Your task to perform on an android device: Go to Reddit.com Image 0: 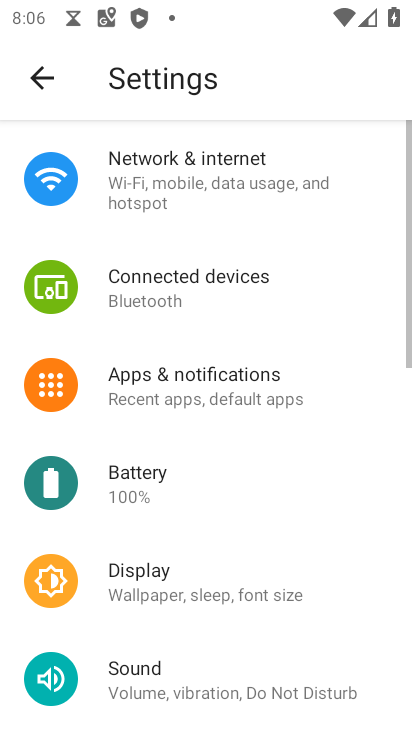
Step 0: press back button
Your task to perform on an android device: Go to Reddit.com Image 1: 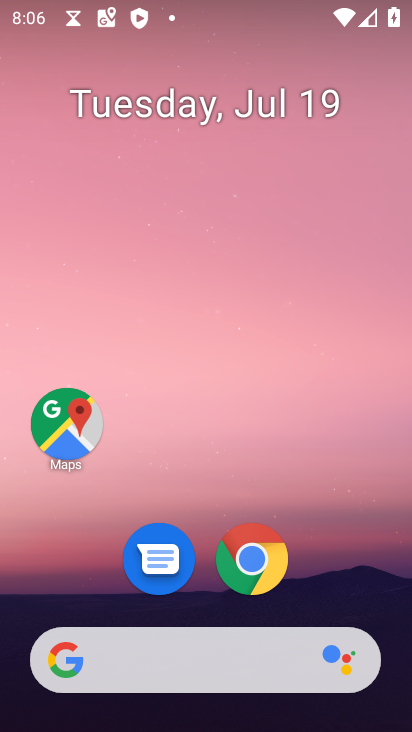
Step 1: click (248, 574)
Your task to perform on an android device: Go to Reddit.com Image 2: 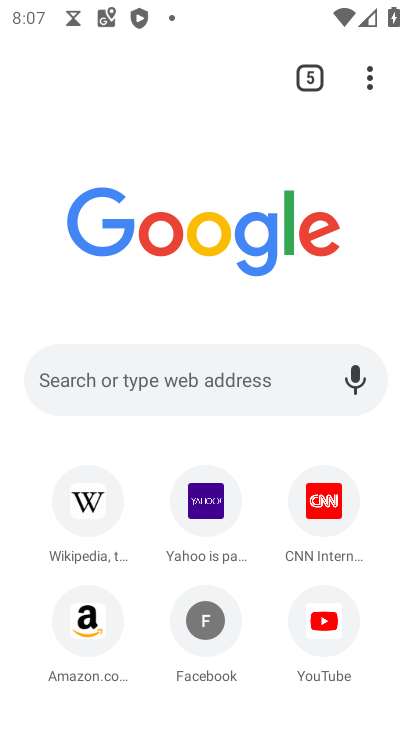
Step 2: click (185, 377)
Your task to perform on an android device: Go to Reddit.com Image 3: 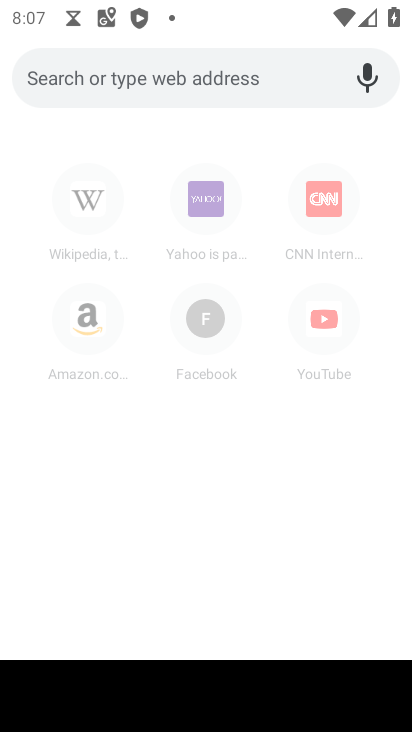
Step 3: type "reddit.com"
Your task to perform on an android device: Go to Reddit.com Image 4: 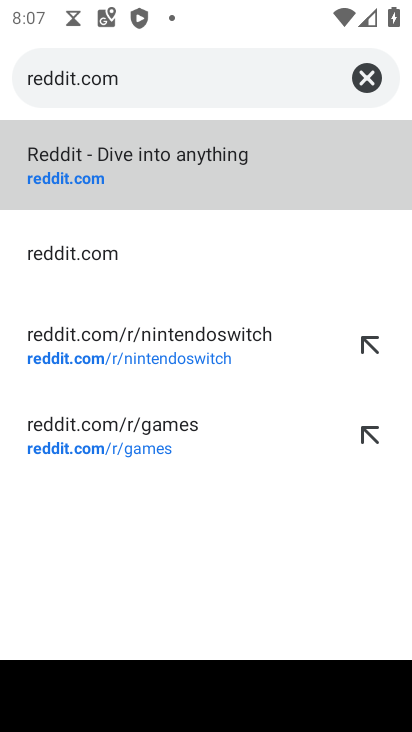
Step 4: click (126, 183)
Your task to perform on an android device: Go to Reddit.com Image 5: 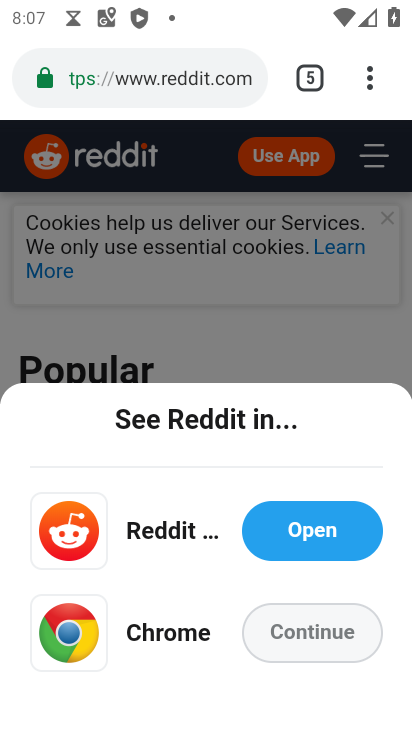
Step 5: task complete